Your task to perform on an android device: Go to wifi settings Image 0: 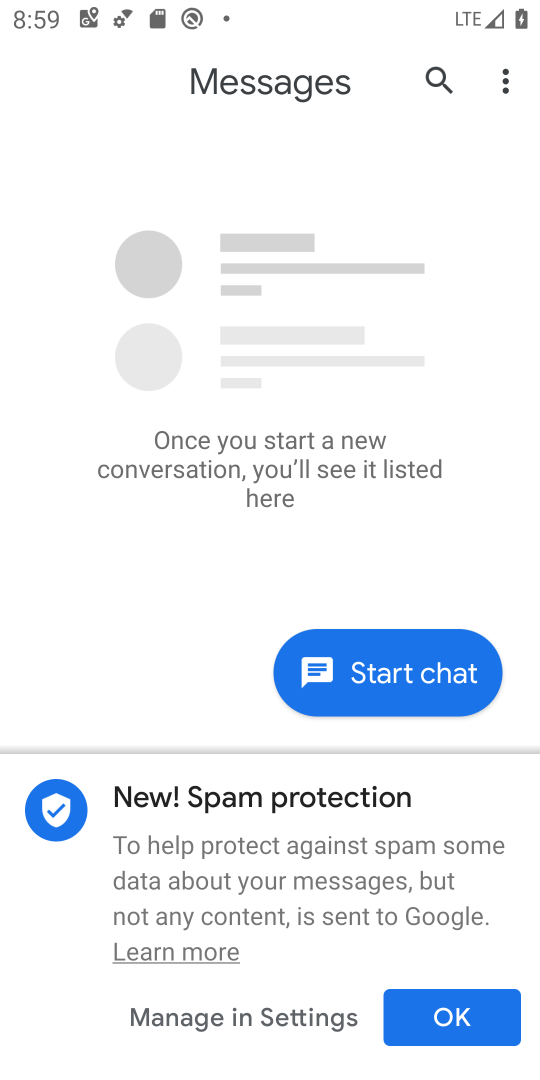
Step 0: press home button
Your task to perform on an android device: Go to wifi settings Image 1: 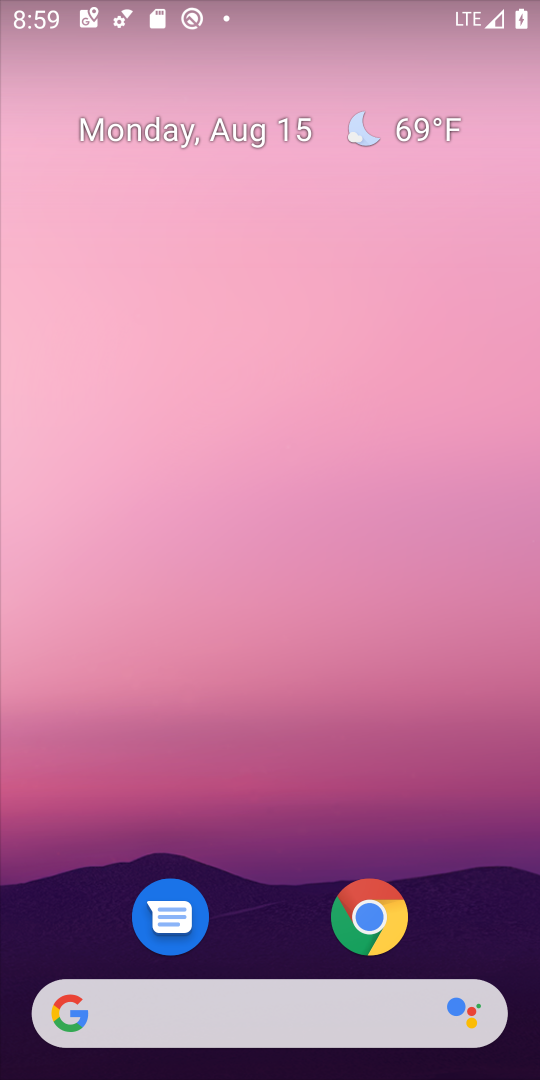
Step 1: drag from (278, 889) to (236, 54)
Your task to perform on an android device: Go to wifi settings Image 2: 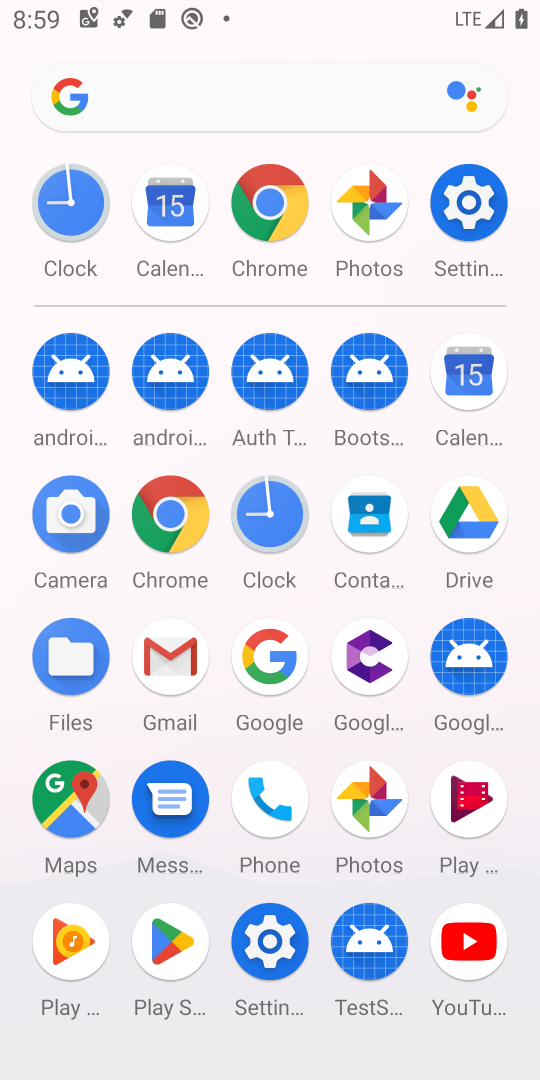
Step 2: click (476, 192)
Your task to perform on an android device: Go to wifi settings Image 3: 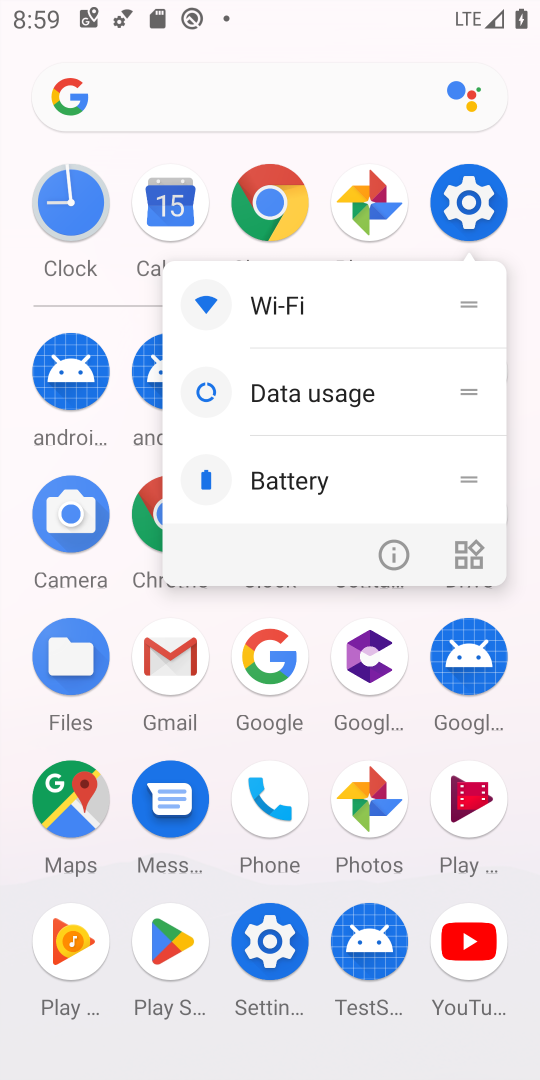
Step 3: click (477, 192)
Your task to perform on an android device: Go to wifi settings Image 4: 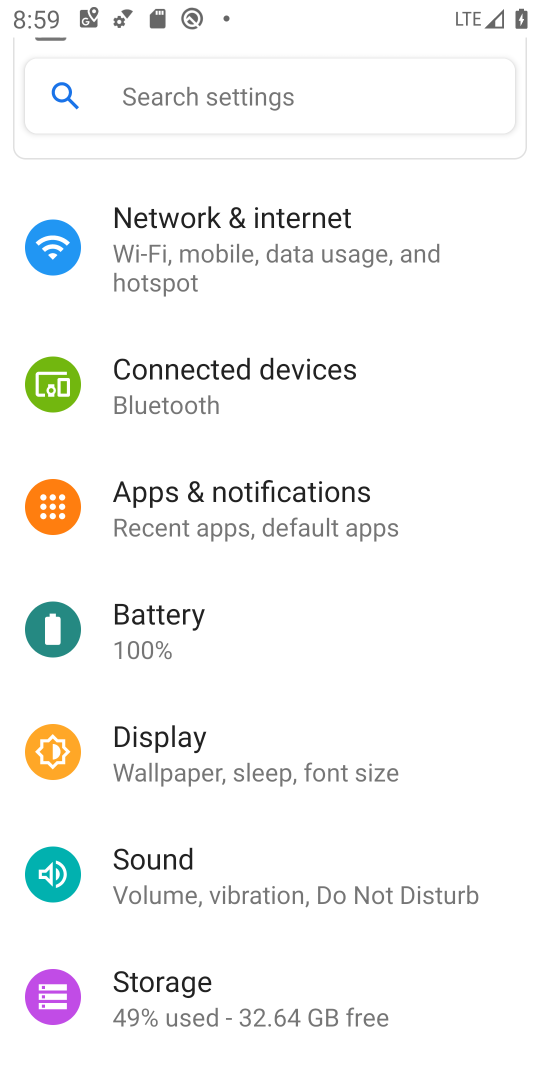
Step 4: click (321, 255)
Your task to perform on an android device: Go to wifi settings Image 5: 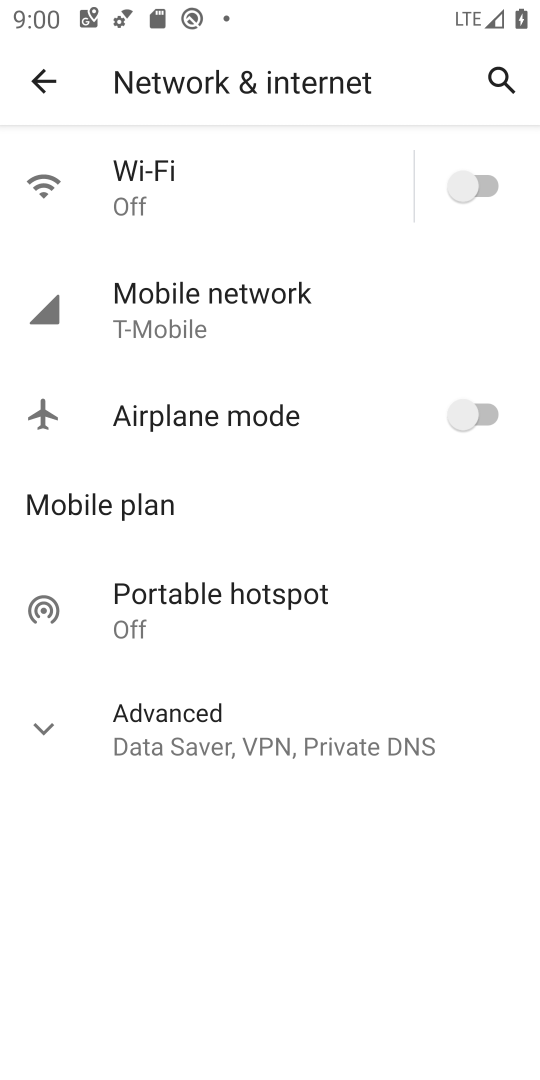
Step 5: click (199, 186)
Your task to perform on an android device: Go to wifi settings Image 6: 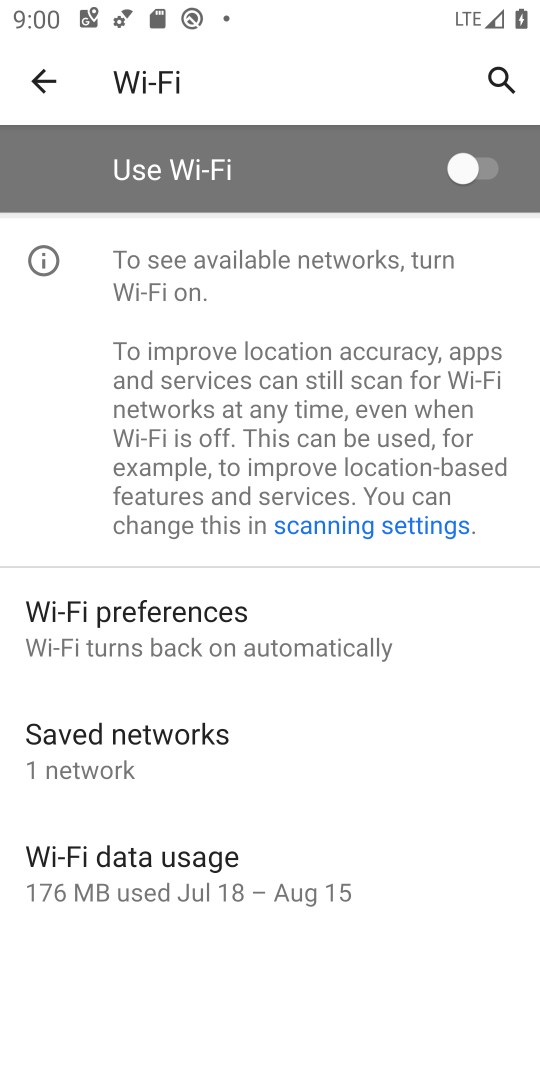
Step 6: task complete